Your task to perform on an android device: find snoozed emails in the gmail app Image 0: 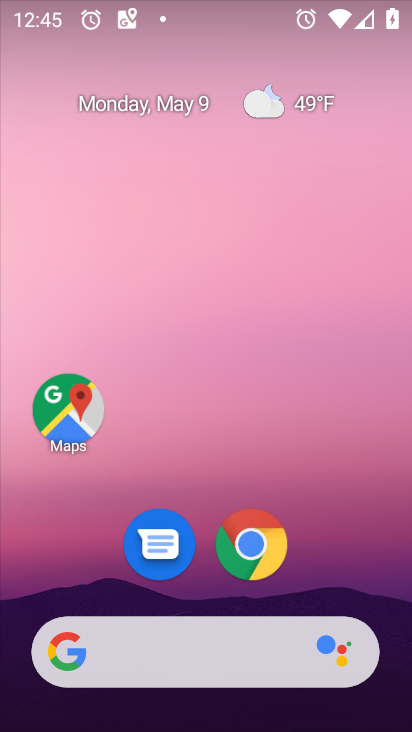
Step 0: drag from (205, 636) to (188, 213)
Your task to perform on an android device: find snoozed emails in the gmail app Image 1: 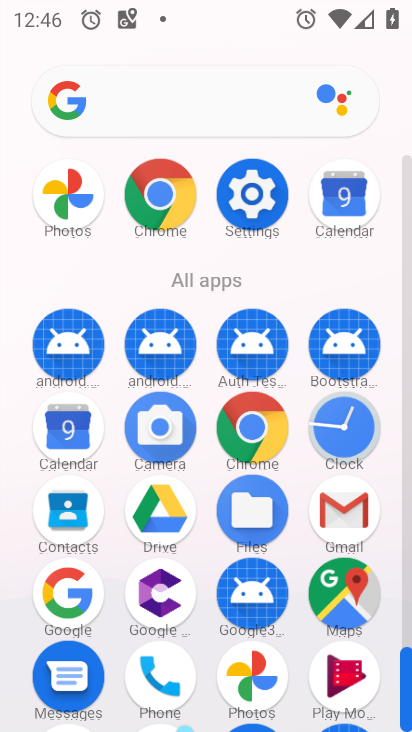
Step 1: click (348, 499)
Your task to perform on an android device: find snoozed emails in the gmail app Image 2: 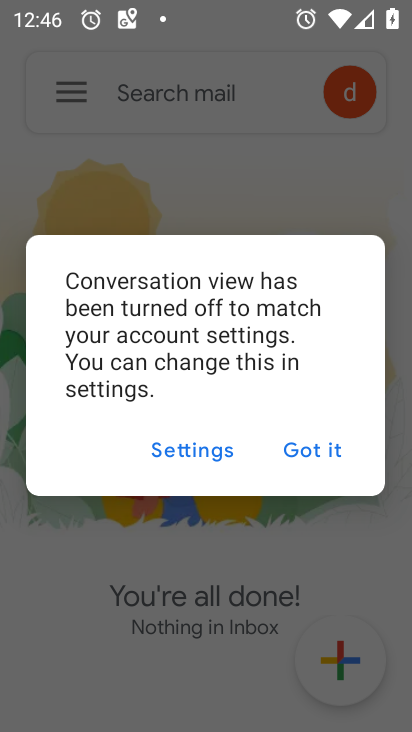
Step 2: click (297, 441)
Your task to perform on an android device: find snoozed emails in the gmail app Image 3: 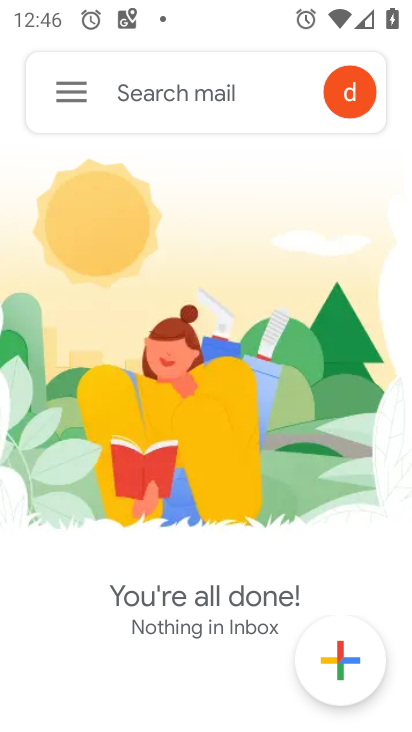
Step 3: click (57, 82)
Your task to perform on an android device: find snoozed emails in the gmail app Image 4: 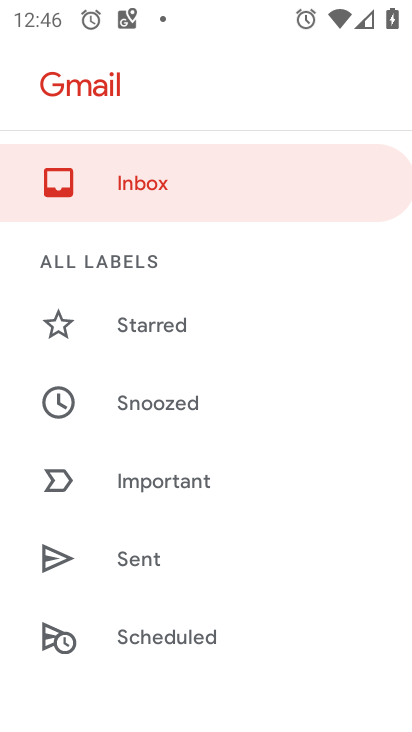
Step 4: click (133, 395)
Your task to perform on an android device: find snoozed emails in the gmail app Image 5: 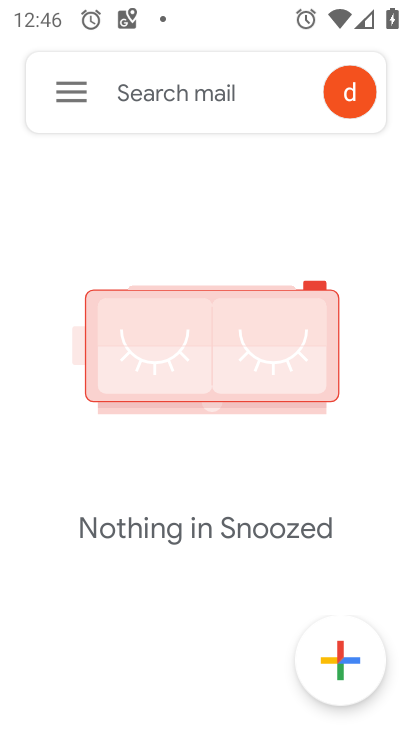
Step 5: click (133, 395)
Your task to perform on an android device: find snoozed emails in the gmail app Image 6: 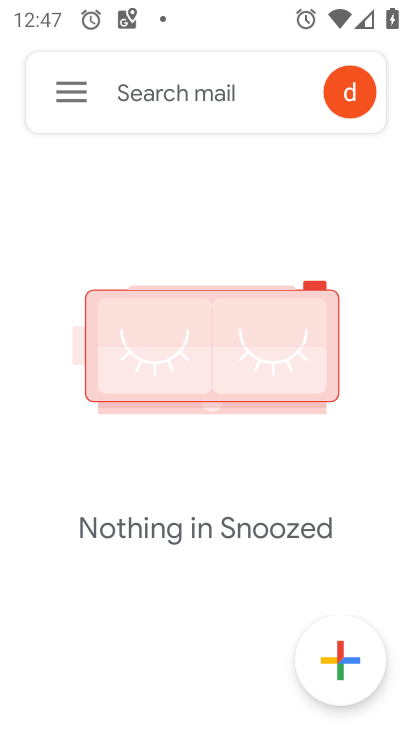
Step 6: task complete